Your task to perform on an android device: turn off wifi Image 0: 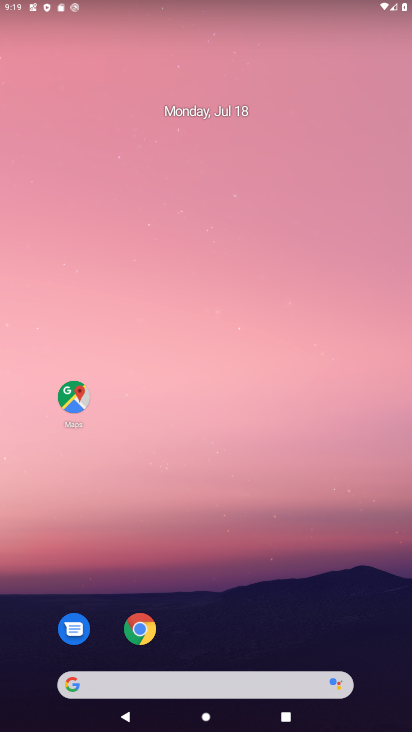
Step 0: drag from (329, 649) to (308, 167)
Your task to perform on an android device: turn off wifi Image 1: 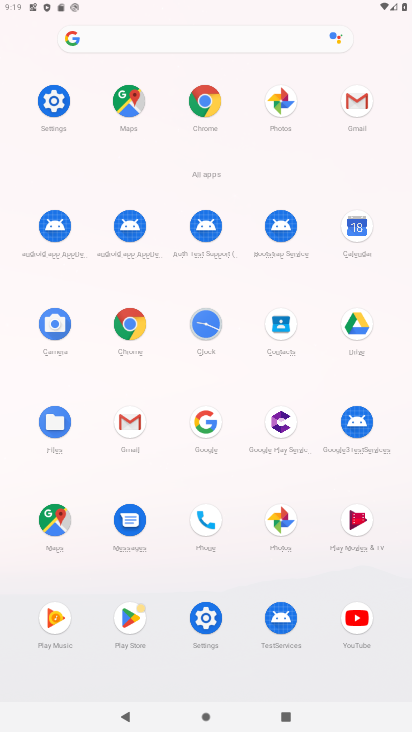
Step 1: click (55, 99)
Your task to perform on an android device: turn off wifi Image 2: 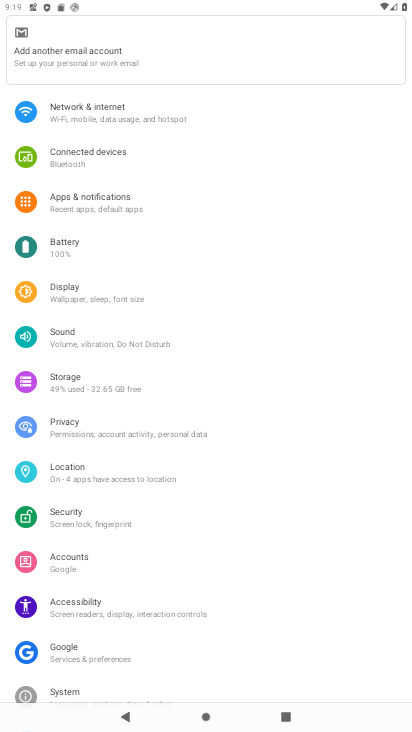
Step 2: click (109, 117)
Your task to perform on an android device: turn off wifi Image 3: 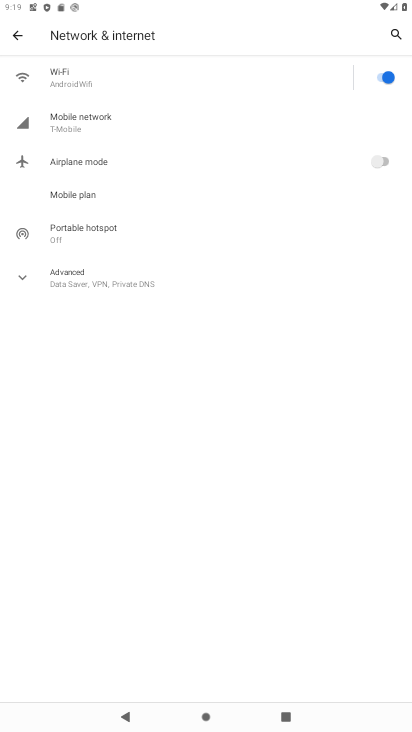
Step 3: click (390, 83)
Your task to perform on an android device: turn off wifi Image 4: 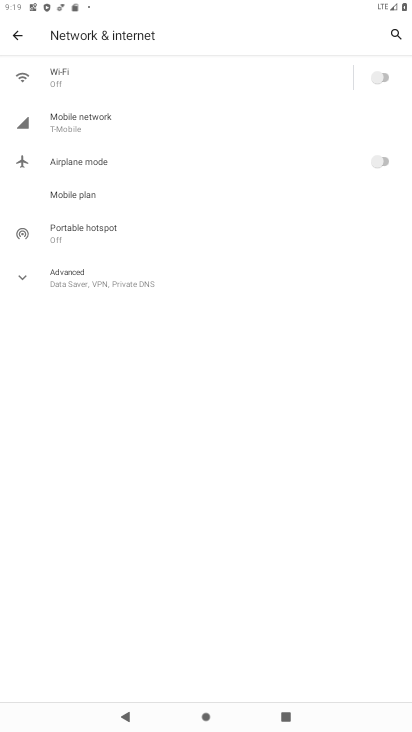
Step 4: task complete